Your task to perform on an android device: change timer sound Image 0: 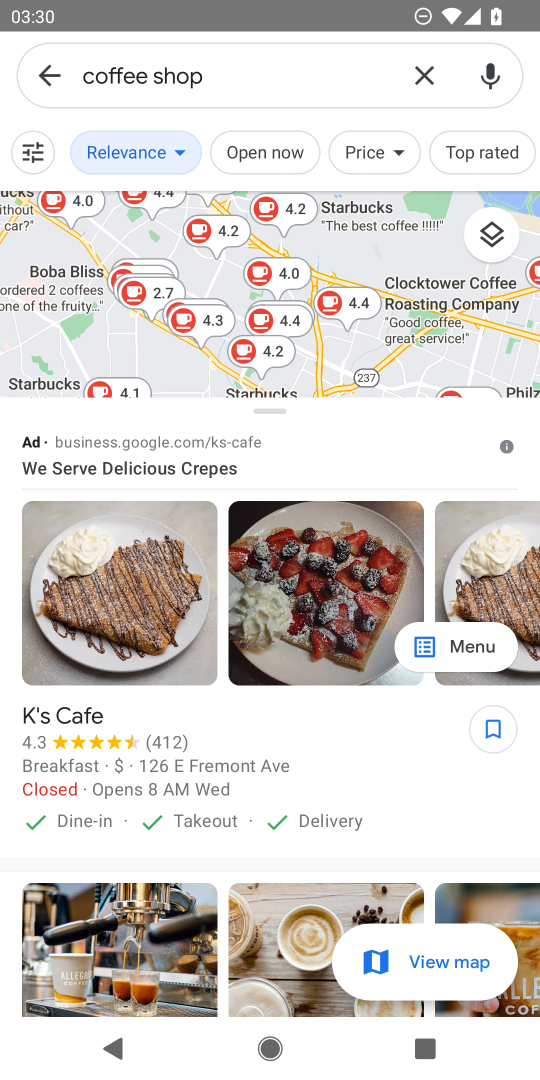
Step 0: press home button
Your task to perform on an android device: change timer sound Image 1: 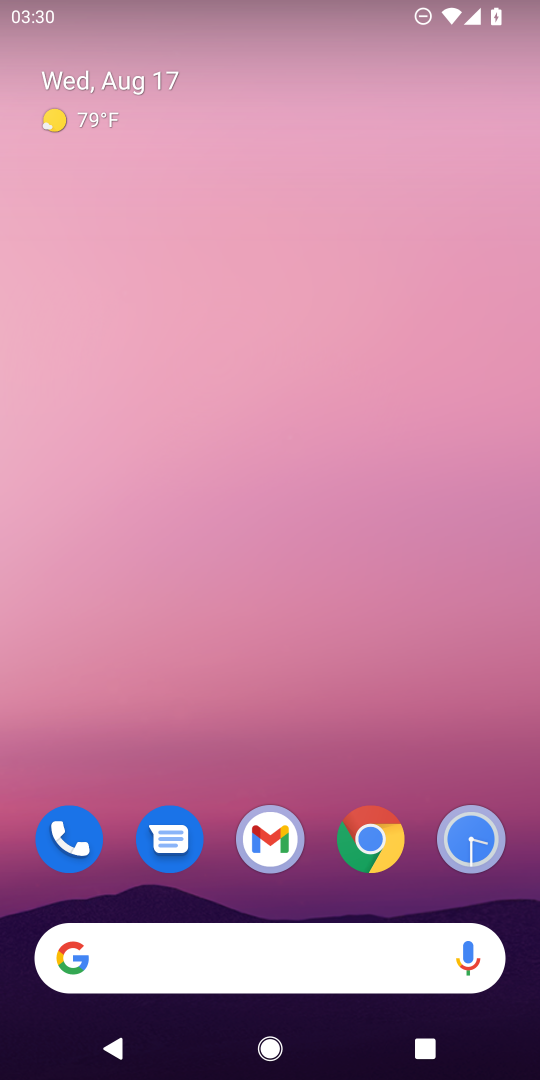
Step 1: drag from (342, 910) to (230, 275)
Your task to perform on an android device: change timer sound Image 2: 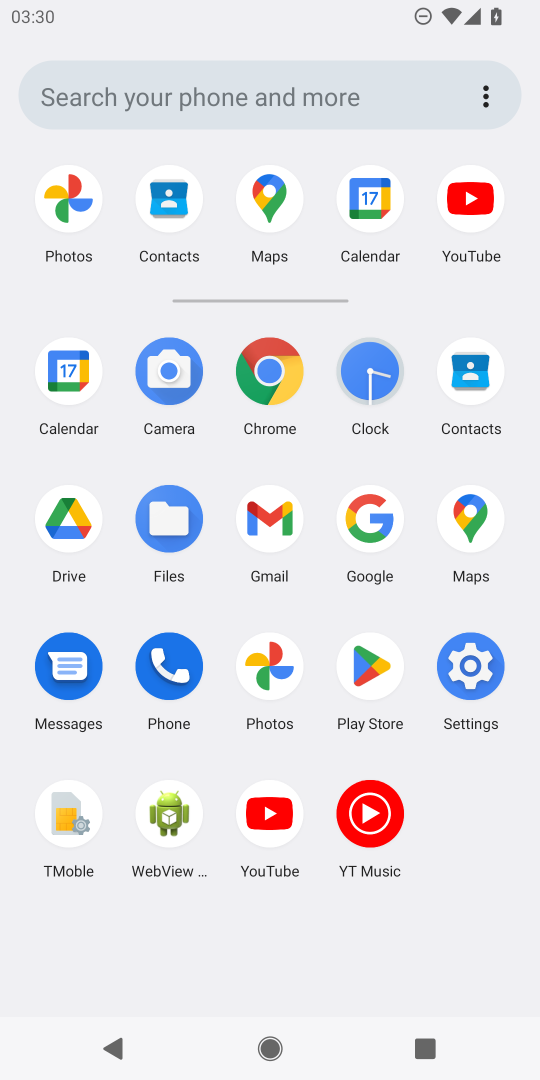
Step 2: click (372, 358)
Your task to perform on an android device: change timer sound Image 3: 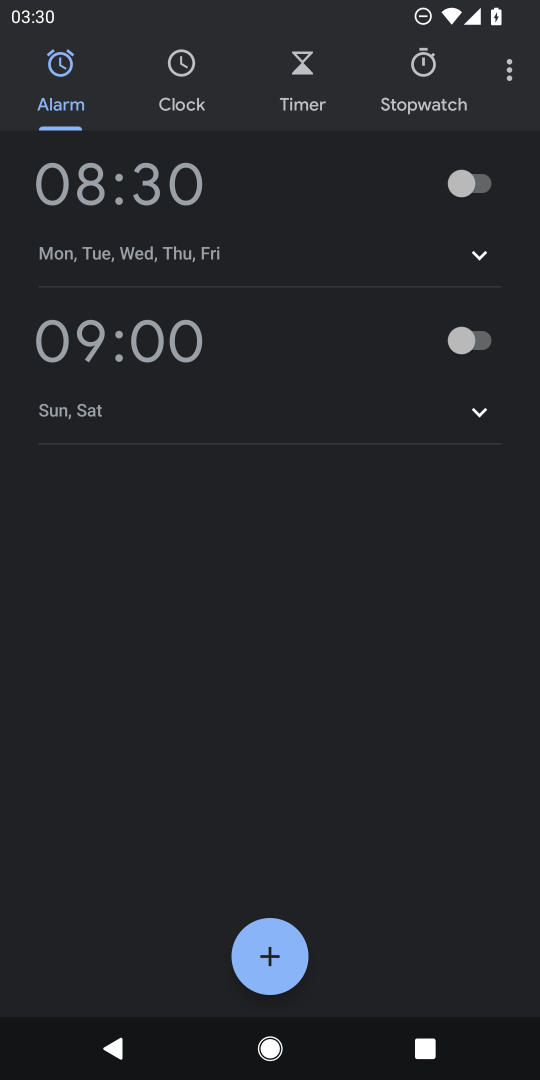
Step 3: click (513, 88)
Your task to perform on an android device: change timer sound Image 4: 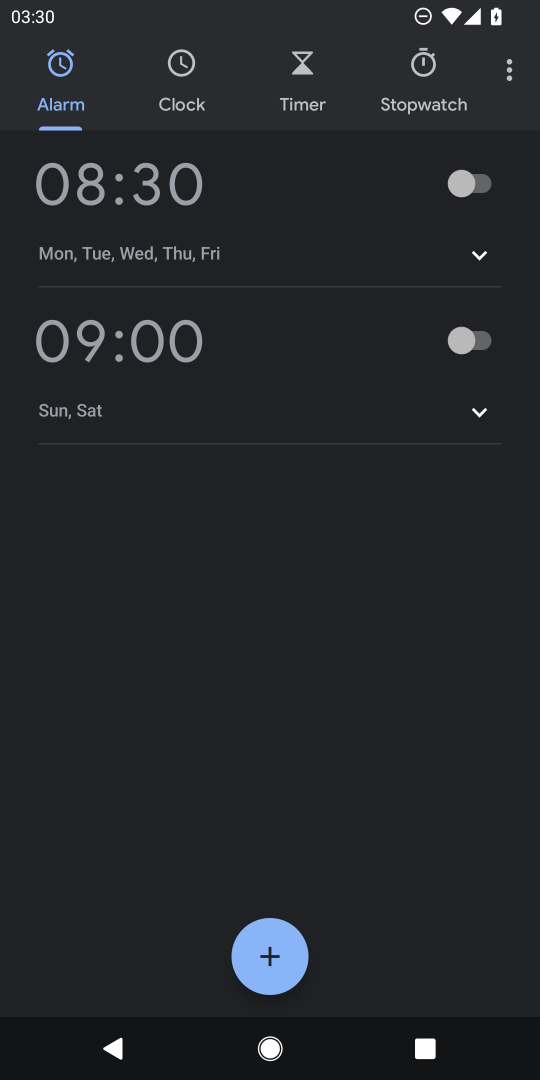
Step 4: click (491, 58)
Your task to perform on an android device: change timer sound Image 5: 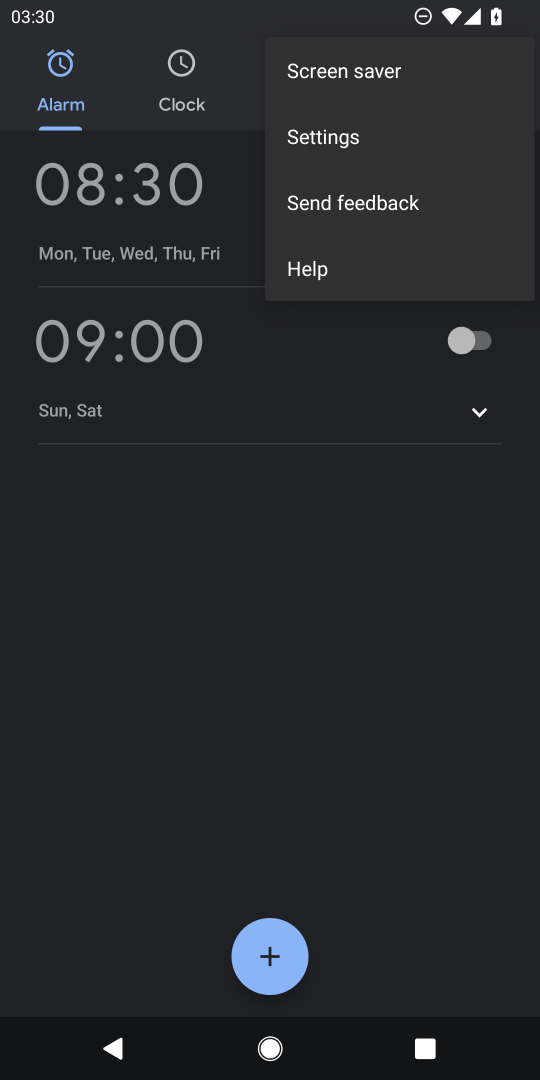
Step 5: click (330, 133)
Your task to perform on an android device: change timer sound Image 6: 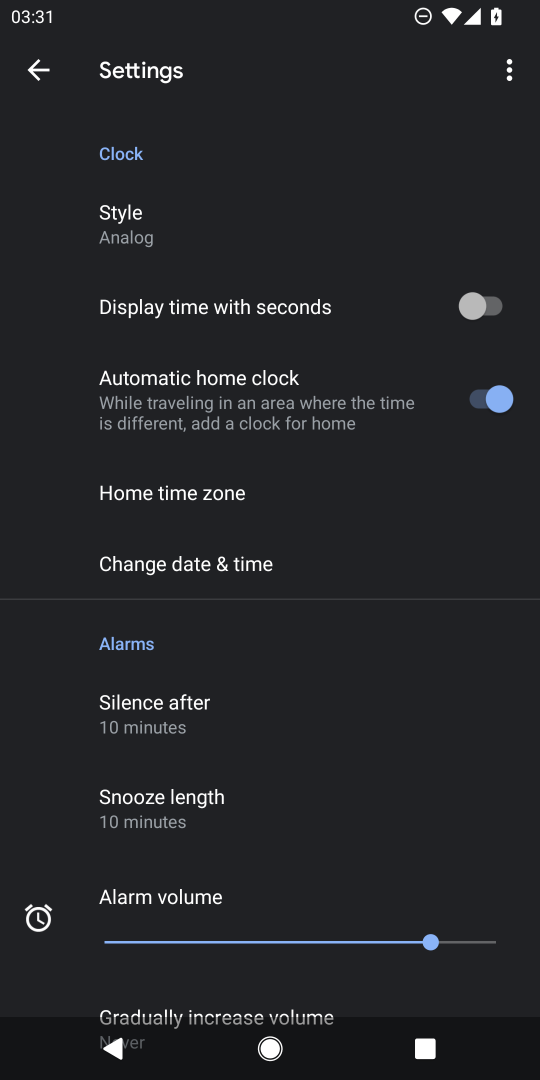
Step 6: drag from (176, 854) to (119, 514)
Your task to perform on an android device: change timer sound Image 7: 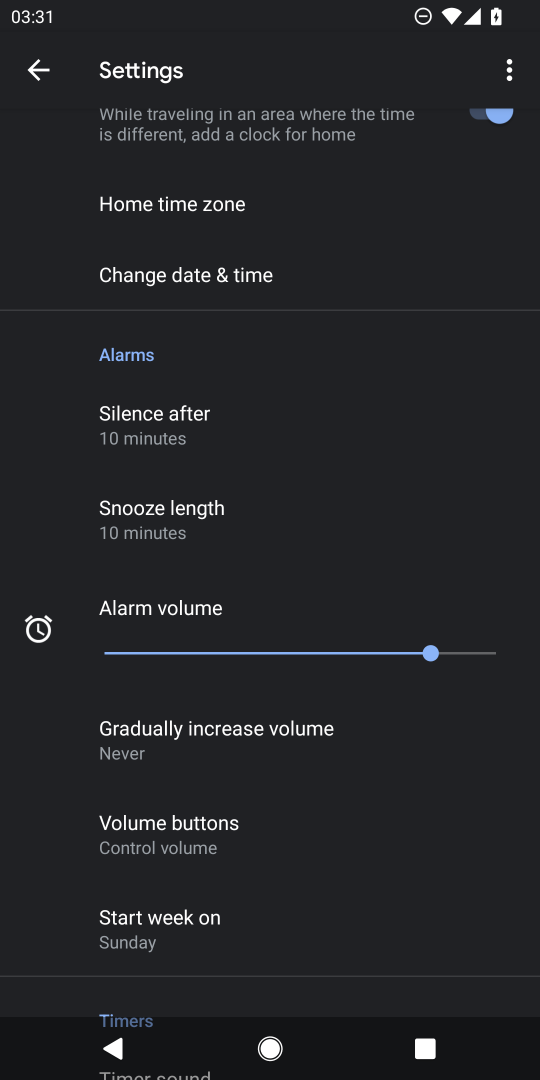
Step 7: drag from (208, 953) to (254, 396)
Your task to perform on an android device: change timer sound Image 8: 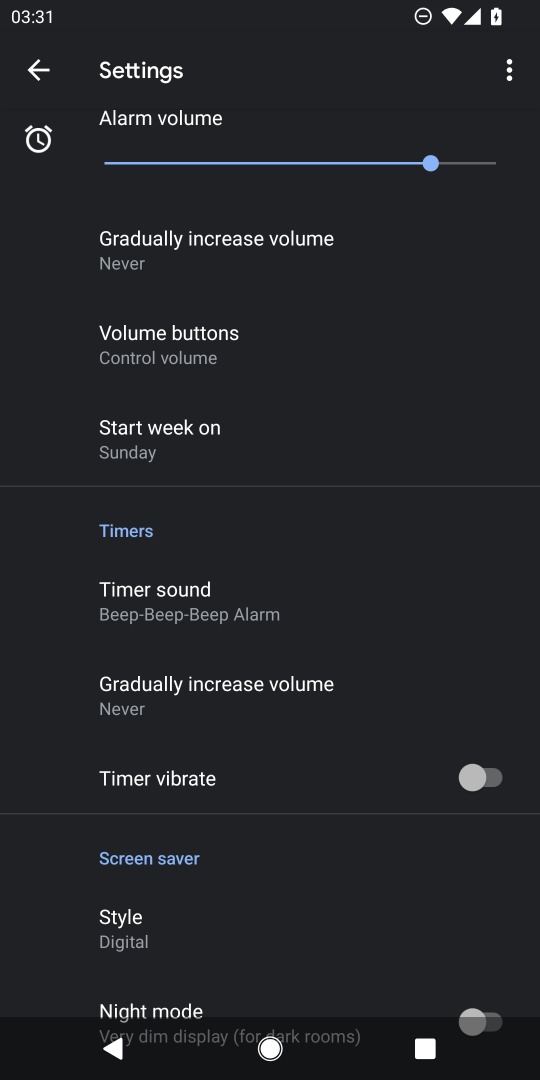
Step 8: click (206, 644)
Your task to perform on an android device: change timer sound Image 9: 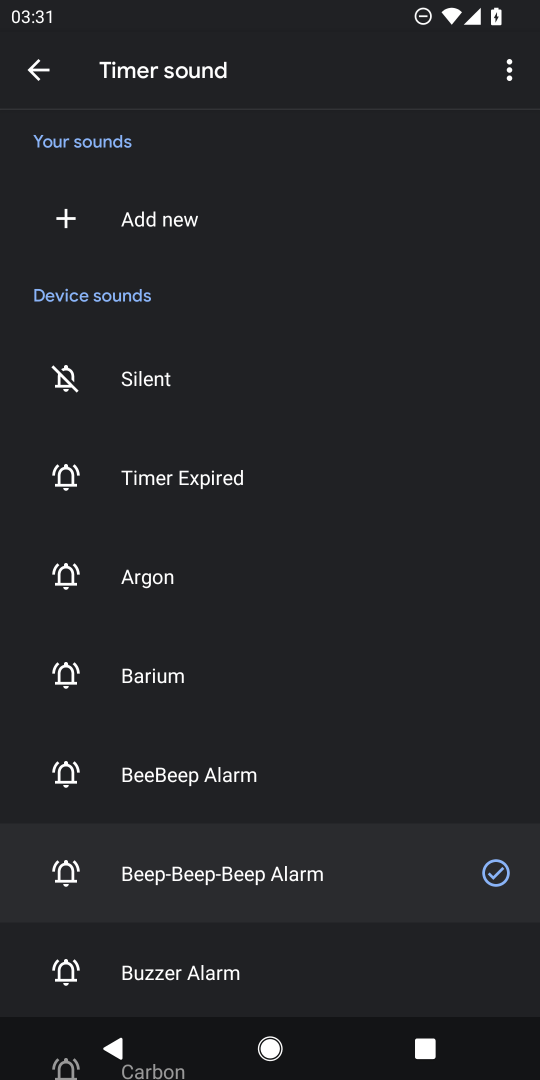
Step 9: click (177, 973)
Your task to perform on an android device: change timer sound Image 10: 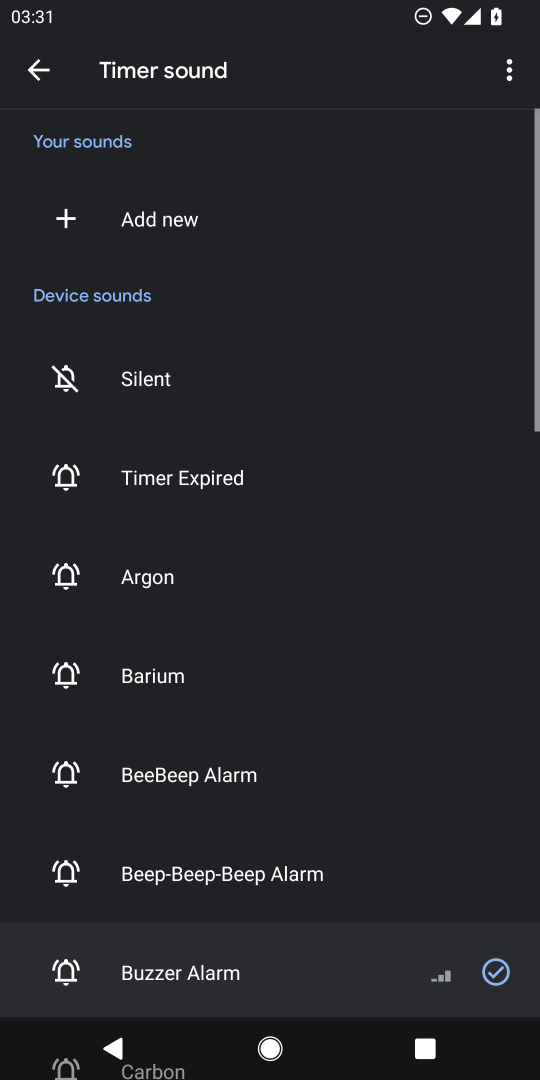
Step 10: task complete